Your task to perform on an android device: Open eBay Image 0: 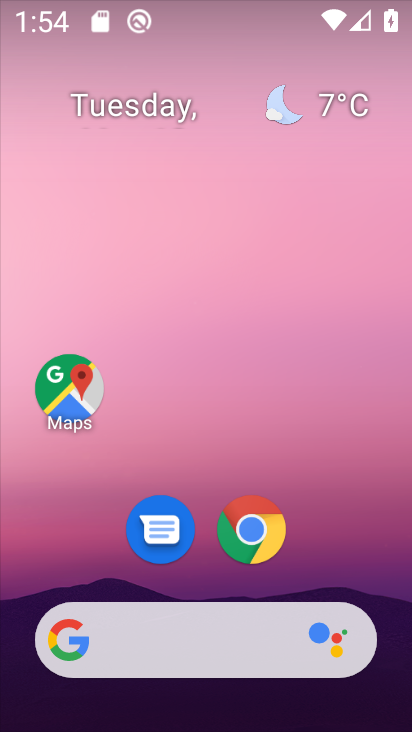
Step 0: drag from (305, 568) to (237, 60)
Your task to perform on an android device: Open eBay Image 1: 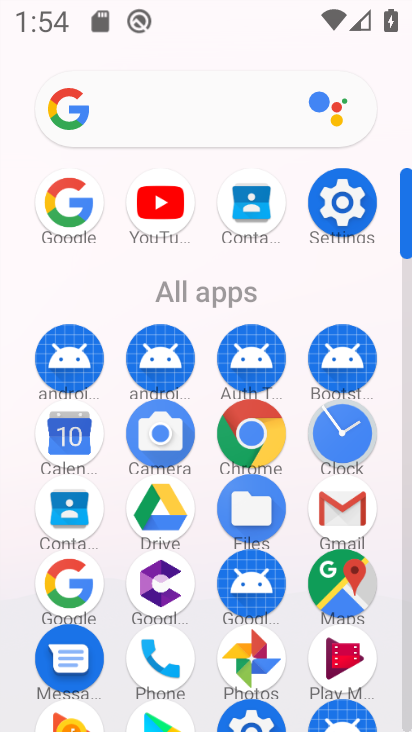
Step 1: click (67, 201)
Your task to perform on an android device: Open eBay Image 2: 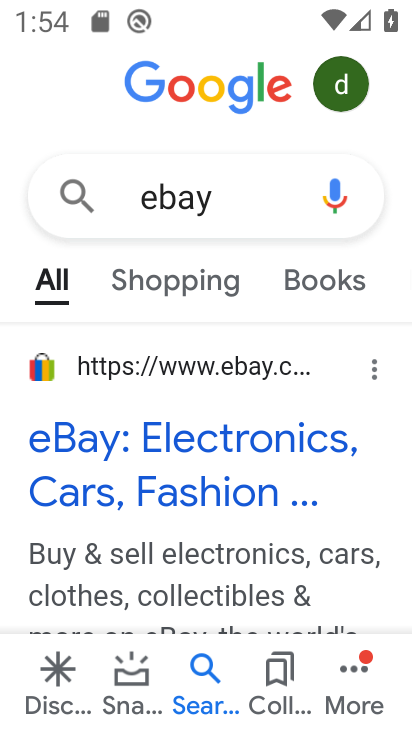
Step 2: click (167, 439)
Your task to perform on an android device: Open eBay Image 3: 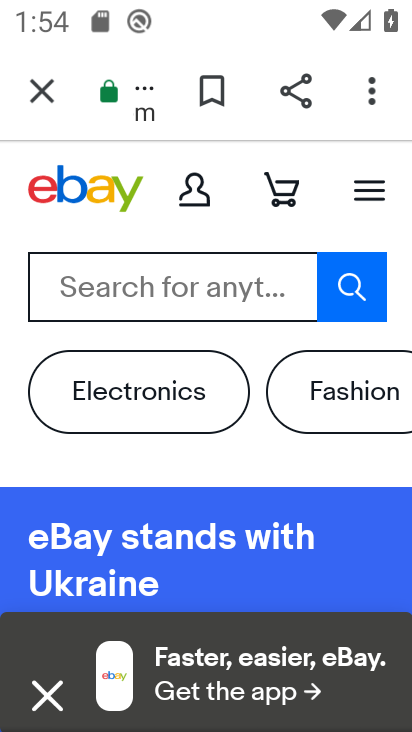
Step 3: task complete